Your task to perform on an android device: Open network settings Image 0: 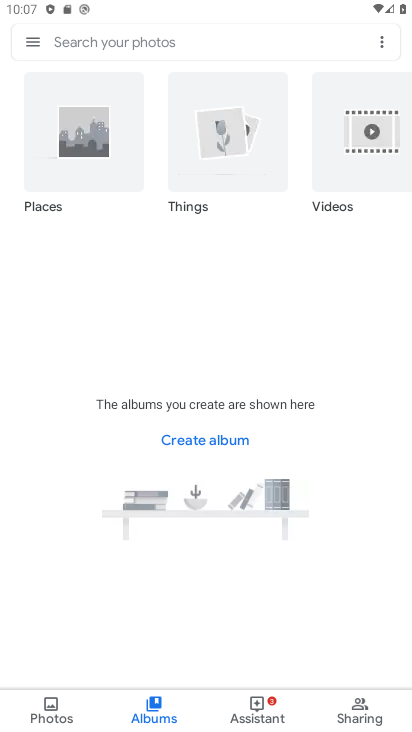
Step 0: press home button
Your task to perform on an android device: Open network settings Image 1: 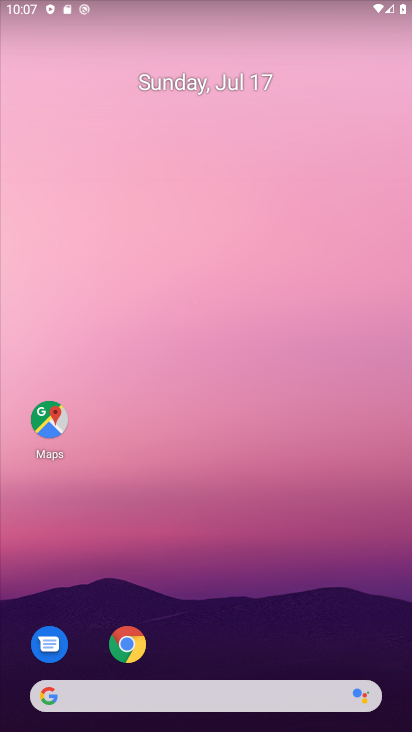
Step 1: drag from (301, 599) to (375, 67)
Your task to perform on an android device: Open network settings Image 2: 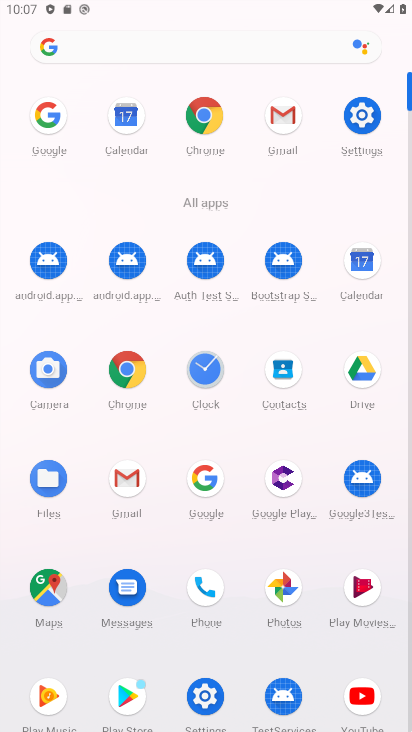
Step 2: click (363, 130)
Your task to perform on an android device: Open network settings Image 3: 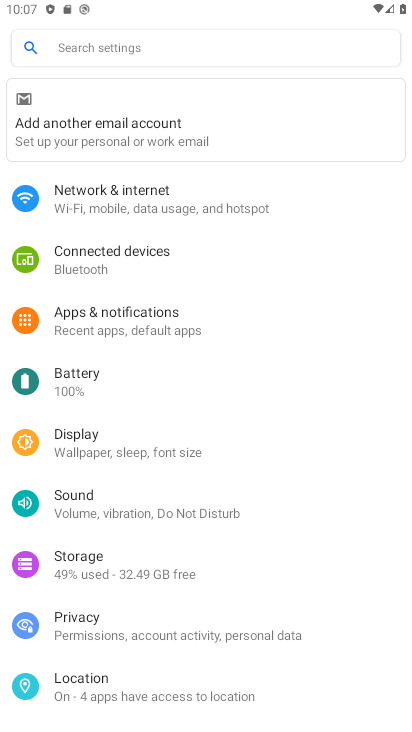
Step 3: click (127, 194)
Your task to perform on an android device: Open network settings Image 4: 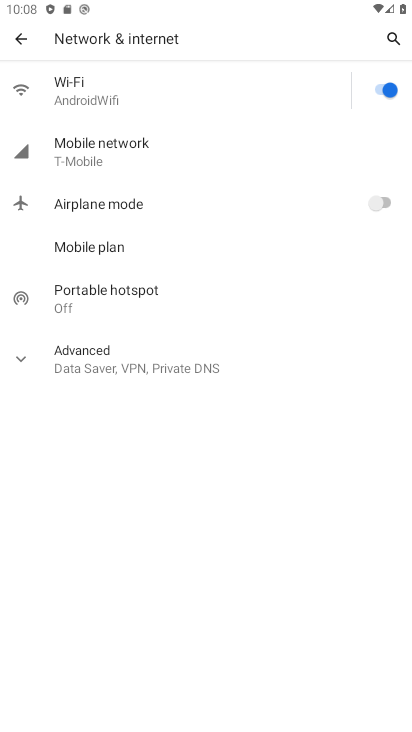
Step 4: task complete